Your task to perform on an android device: open a bookmark in the chrome app Image 0: 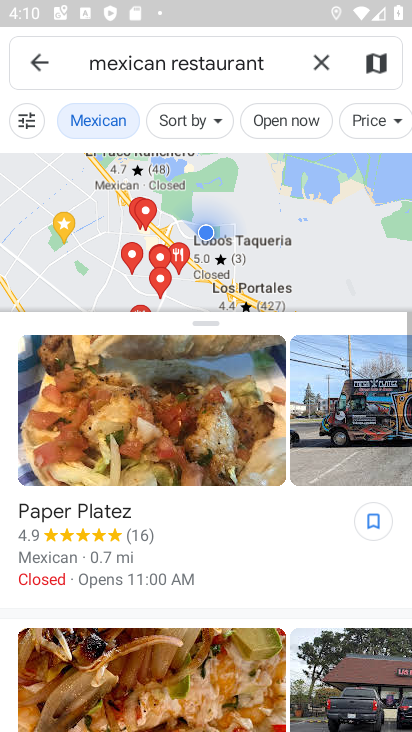
Step 0: press home button
Your task to perform on an android device: open a bookmark in the chrome app Image 1: 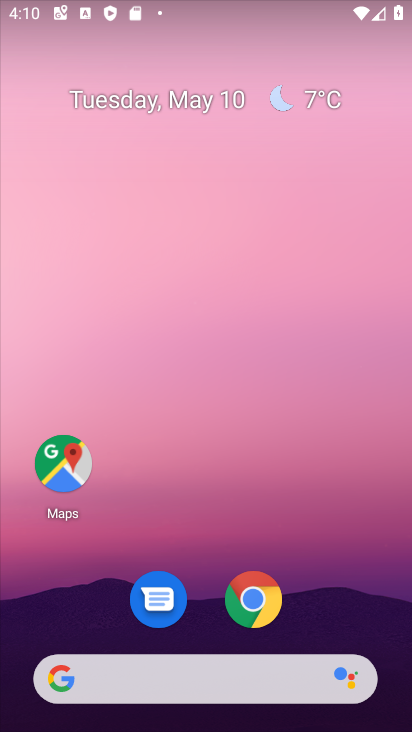
Step 1: drag from (272, 654) to (312, 131)
Your task to perform on an android device: open a bookmark in the chrome app Image 2: 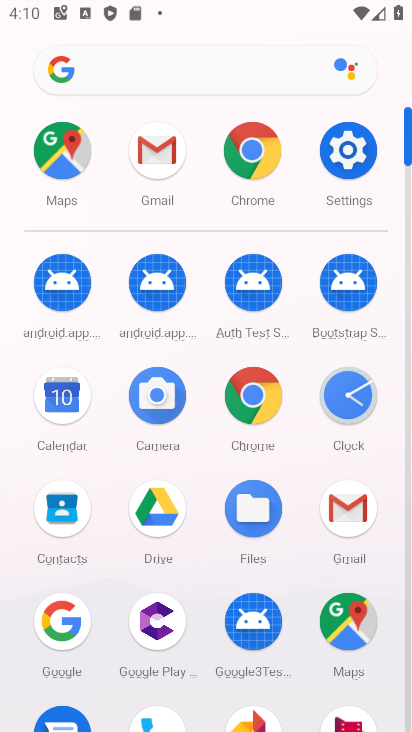
Step 2: click (260, 193)
Your task to perform on an android device: open a bookmark in the chrome app Image 3: 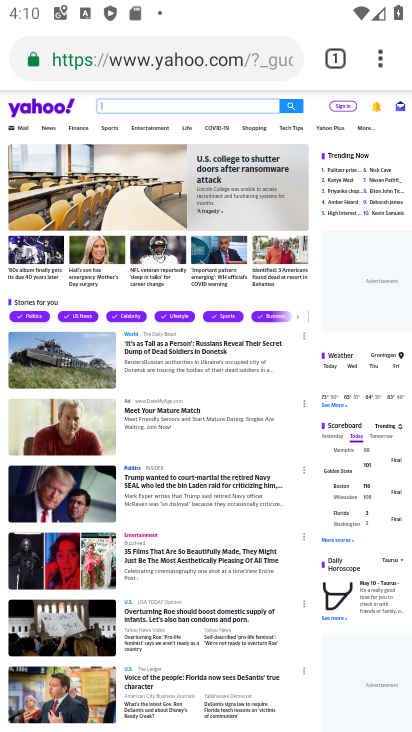
Step 3: click (381, 75)
Your task to perform on an android device: open a bookmark in the chrome app Image 4: 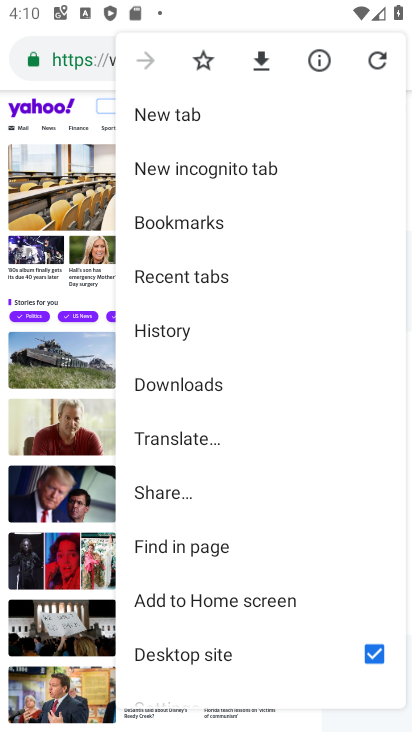
Step 4: click (242, 225)
Your task to perform on an android device: open a bookmark in the chrome app Image 5: 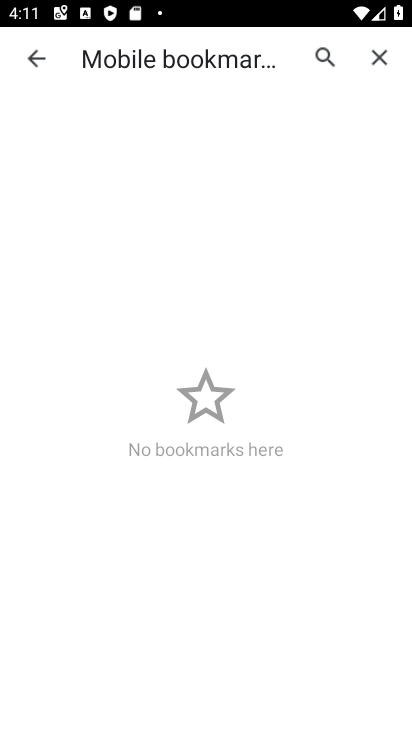
Step 5: task complete